Your task to perform on an android device: choose inbox layout in the gmail app Image 0: 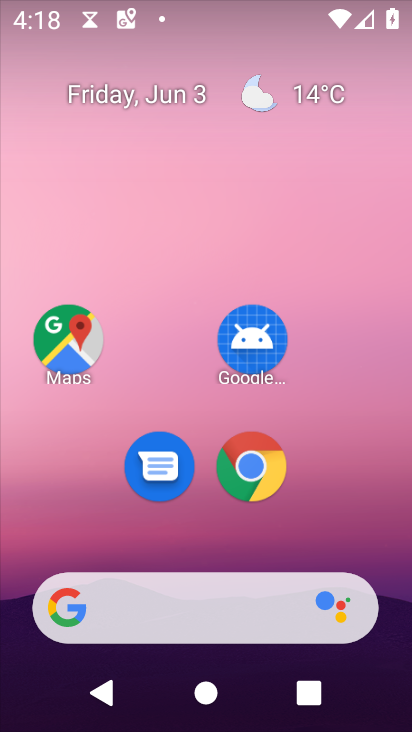
Step 0: drag from (270, 709) to (238, 92)
Your task to perform on an android device: choose inbox layout in the gmail app Image 1: 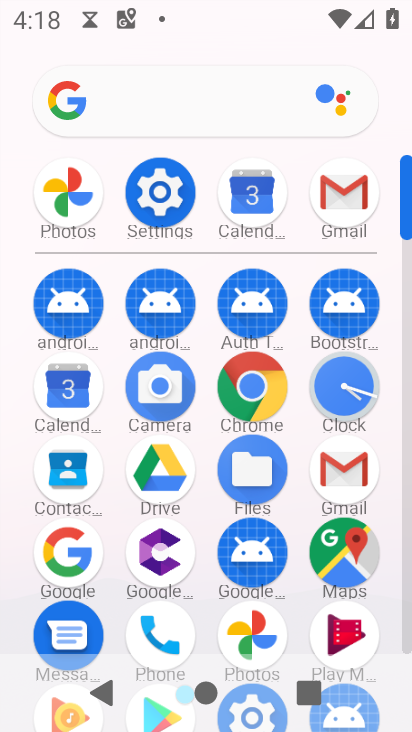
Step 1: click (339, 212)
Your task to perform on an android device: choose inbox layout in the gmail app Image 2: 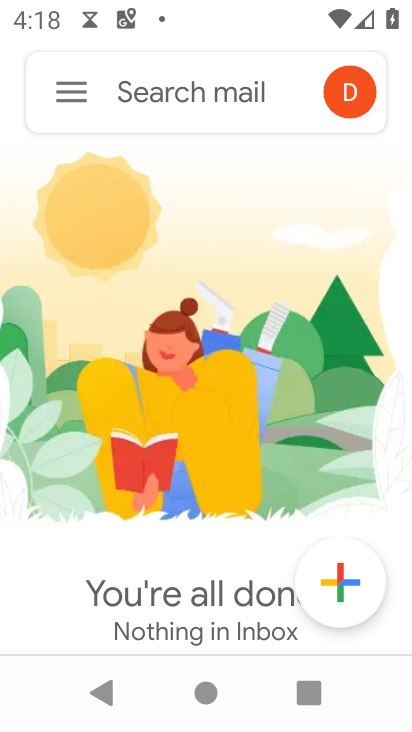
Step 2: click (59, 87)
Your task to perform on an android device: choose inbox layout in the gmail app Image 3: 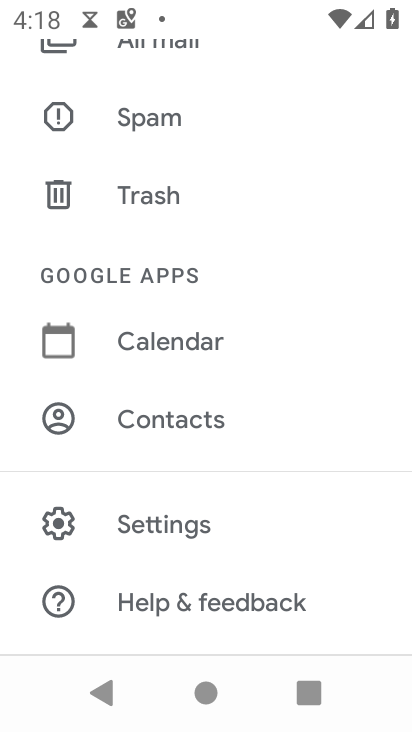
Step 3: click (186, 531)
Your task to perform on an android device: choose inbox layout in the gmail app Image 4: 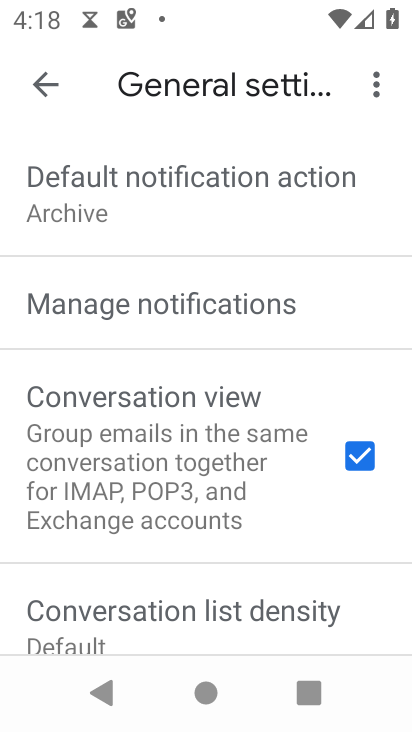
Step 4: click (44, 76)
Your task to perform on an android device: choose inbox layout in the gmail app Image 5: 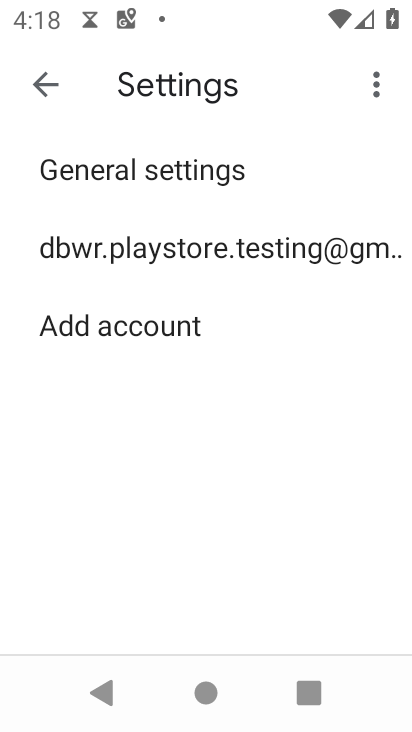
Step 5: click (155, 238)
Your task to perform on an android device: choose inbox layout in the gmail app Image 6: 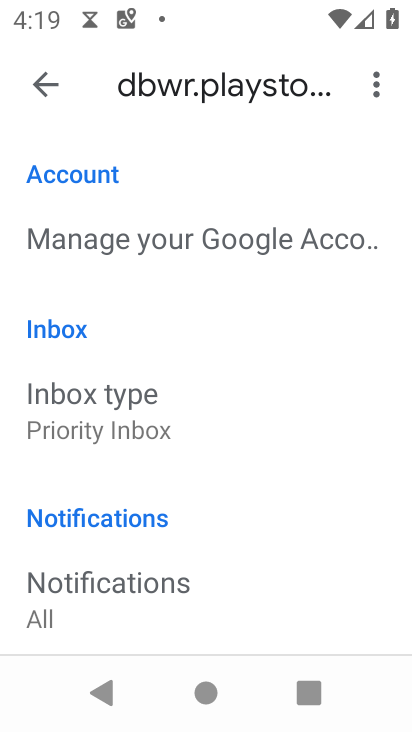
Step 6: click (136, 431)
Your task to perform on an android device: choose inbox layout in the gmail app Image 7: 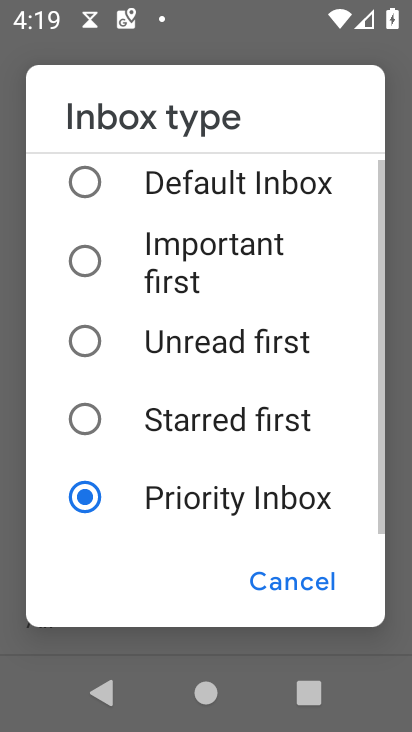
Step 7: click (89, 186)
Your task to perform on an android device: choose inbox layout in the gmail app Image 8: 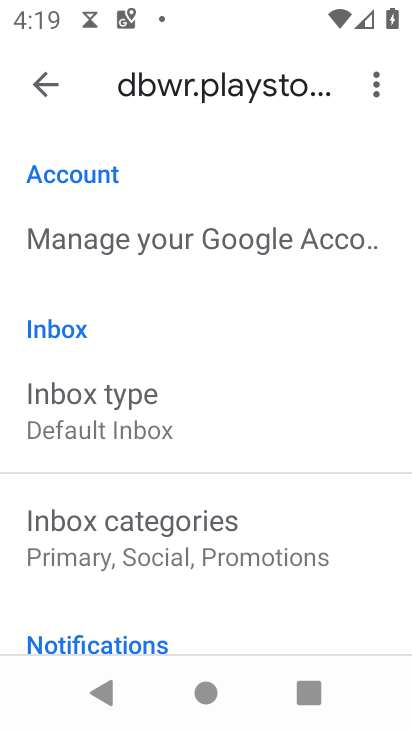
Step 8: task complete